Your task to perform on an android device: Open privacy settings Image 0: 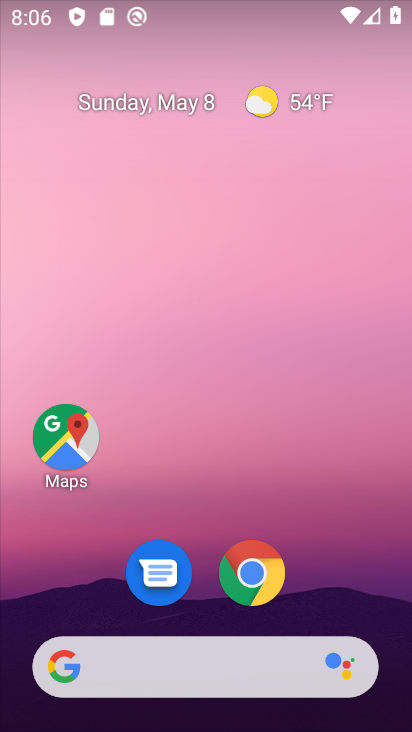
Step 0: drag from (213, 712) to (201, 84)
Your task to perform on an android device: Open privacy settings Image 1: 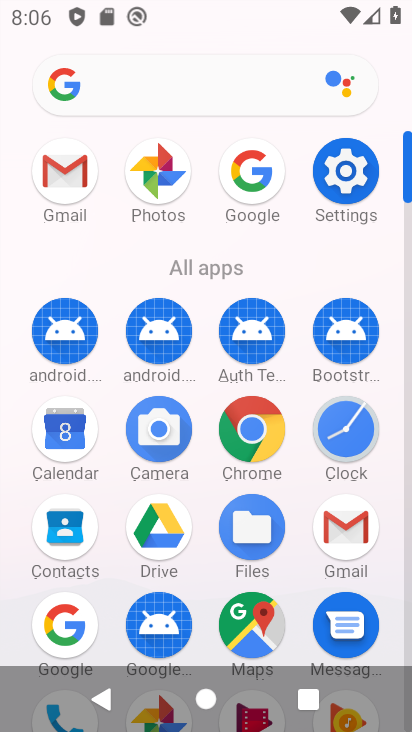
Step 1: click (346, 169)
Your task to perform on an android device: Open privacy settings Image 2: 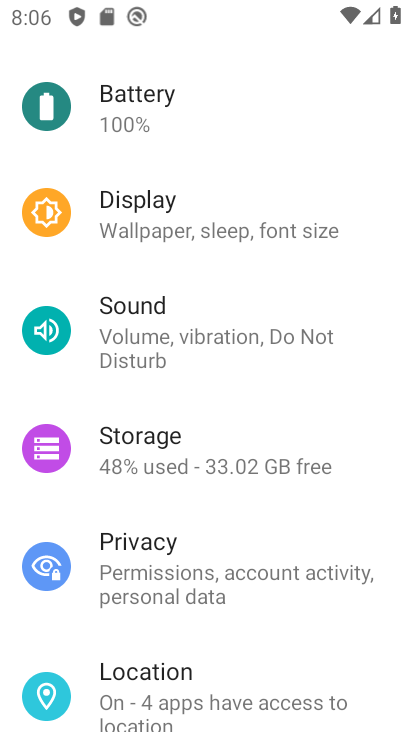
Step 2: click (172, 554)
Your task to perform on an android device: Open privacy settings Image 3: 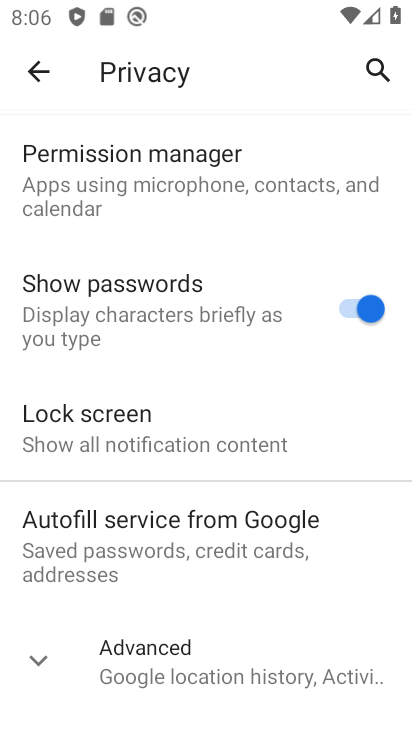
Step 3: task complete